Your task to perform on an android device: Open CNN.com Image 0: 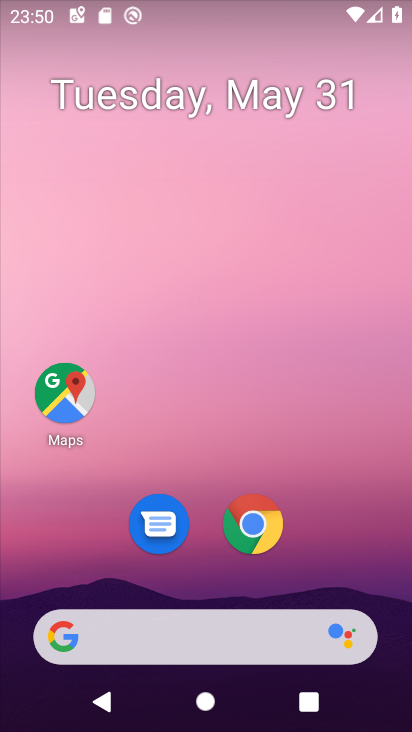
Step 0: click (218, 636)
Your task to perform on an android device: Open CNN.com Image 1: 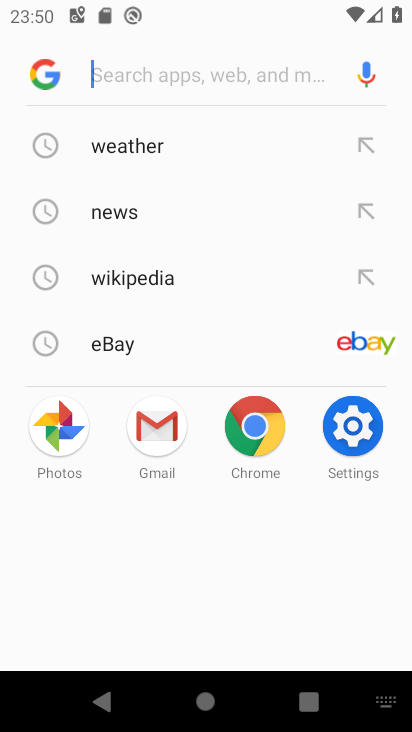
Step 1: type "cnn.com"
Your task to perform on an android device: Open CNN.com Image 2: 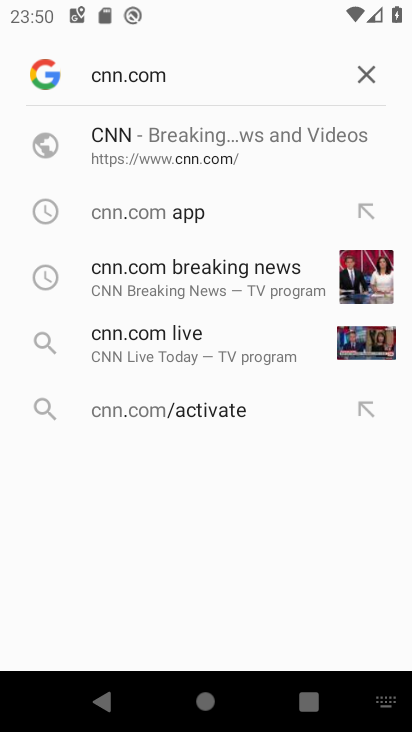
Step 2: click (141, 156)
Your task to perform on an android device: Open CNN.com Image 3: 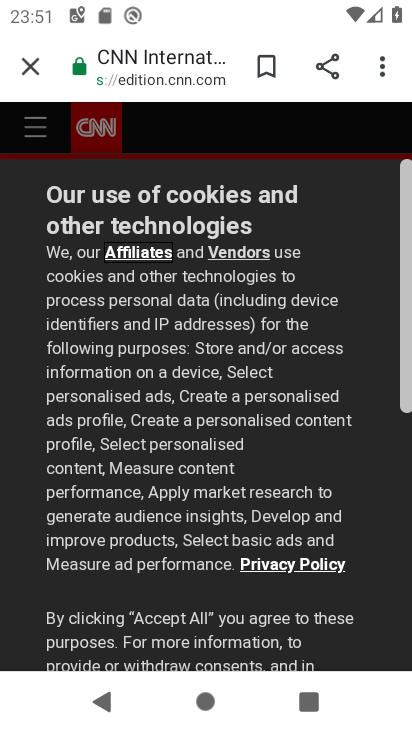
Step 3: drag from (192, 511) to (230, 147)
Your task to perform on an android device: Open CNN.com Image 4: 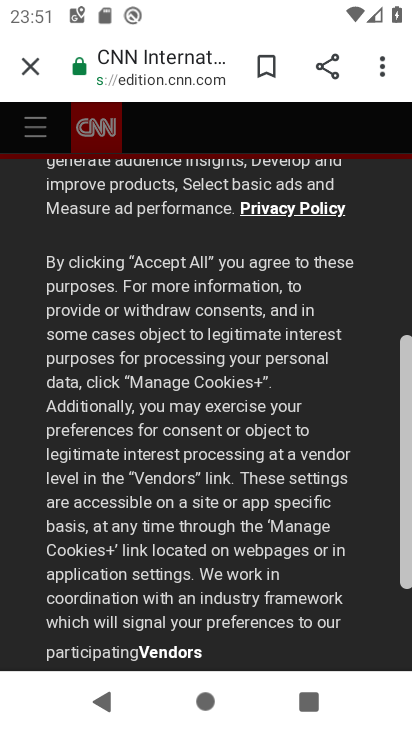
Step 4: drag from (178, 516) to (209, 141)
Your task to perform on an android device: Open CNN.com Image 5: 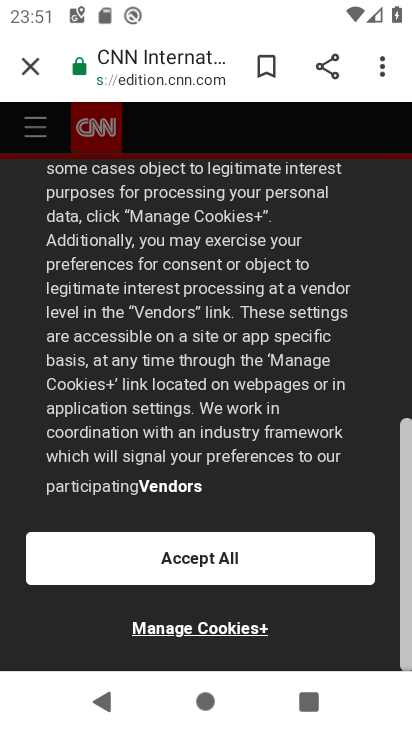
Step 5: click (189, 550)
Your task to perform on an android device: Open CNN.com Image 6: 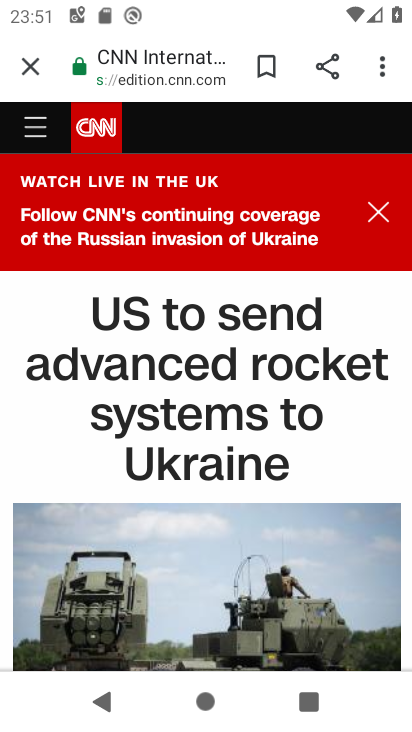
Step 6: task complete